Your task to perform on an android device: search for starred emails in the gmail app Image 0: 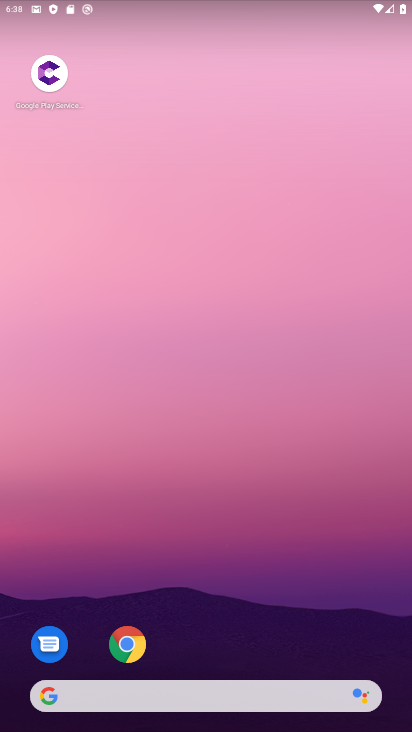
Step 0: drag from (235, 575) to (193, 119)
Your task to perform on an android device: search for starred emails in the gmail app Image 1: 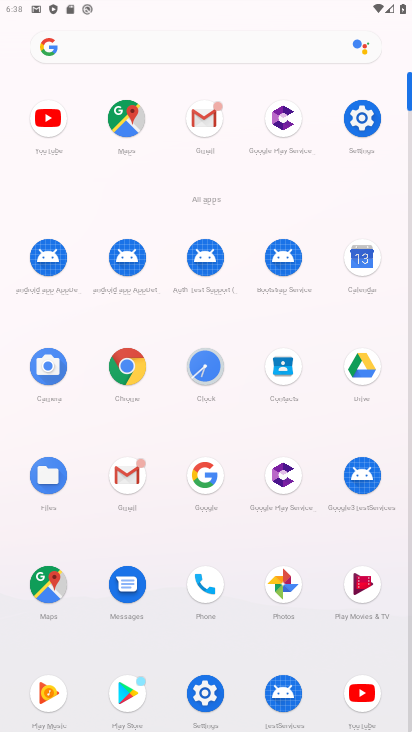
Step 1: click (129, 465)
Your task to perform on an android device: search for starred emails in the gmail app Image 2: 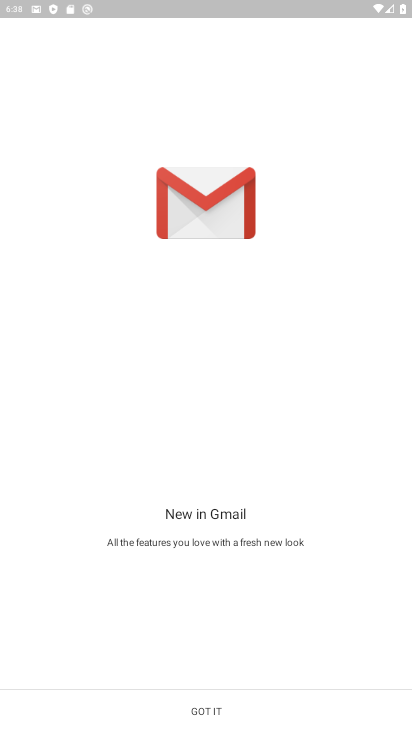
Step 2: click (210, 710)
Your task to perform on an android device: search for starred emails in the gmail app Image 3: 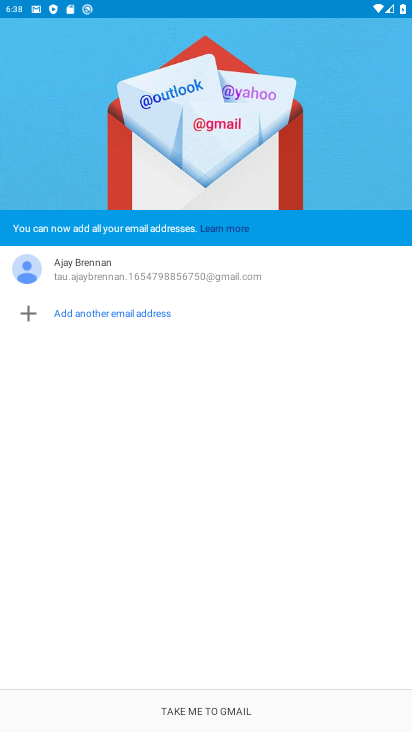
Step 3: click (203, 712)
Your task to perform on an android device: search for starred emails in the gmail app Image 4: 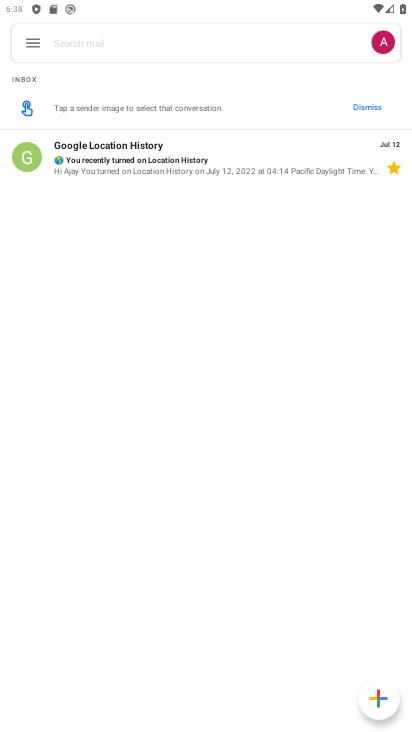
Step 4: click (33, 46)
Your task to perform on an android device: search for starred emails in the gmail app Image 5: 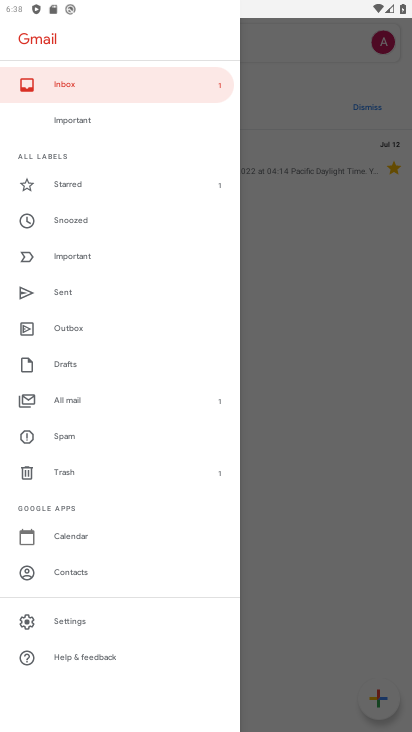
Step 5: click (79, 181)
Your task to perform on an android device: search for starred emails in the gmail app Image 6: 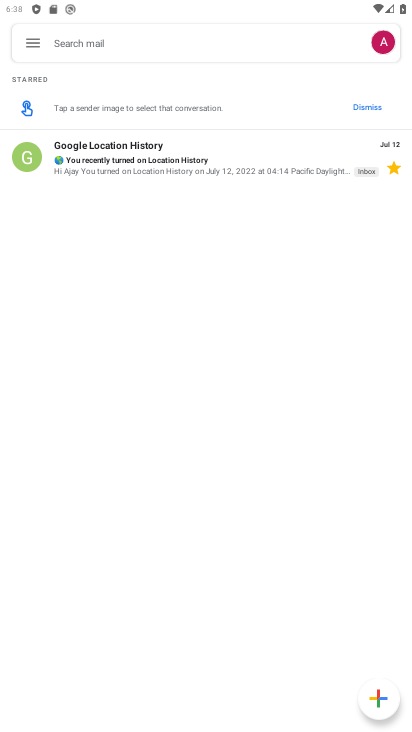
Step 6: task complete